Your task to perform on an android device: Open my contact list Image 0: 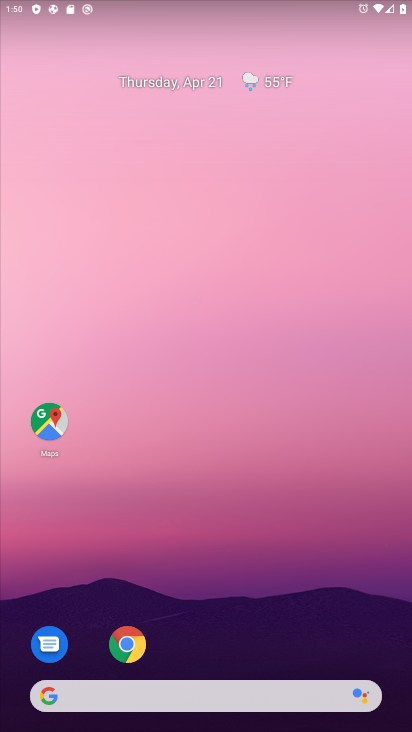
Step 0: drag from (252, 646) to (193, 208)
Your task to perform on an android device: Open my contact list Image 1: 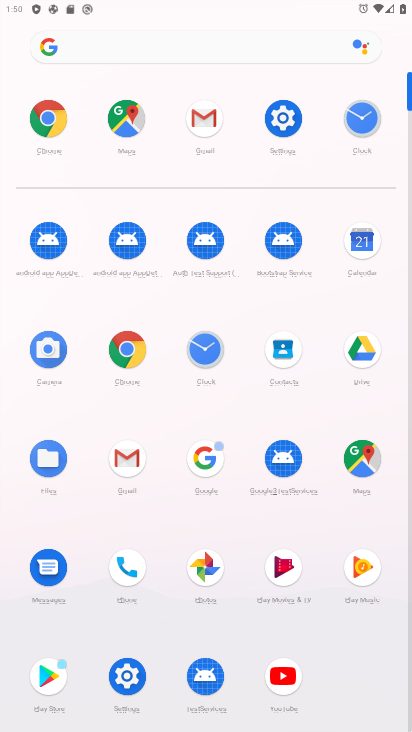
Step 1: click (294, 354)
Your task to perform on an android device: Open my contact list Image 2: 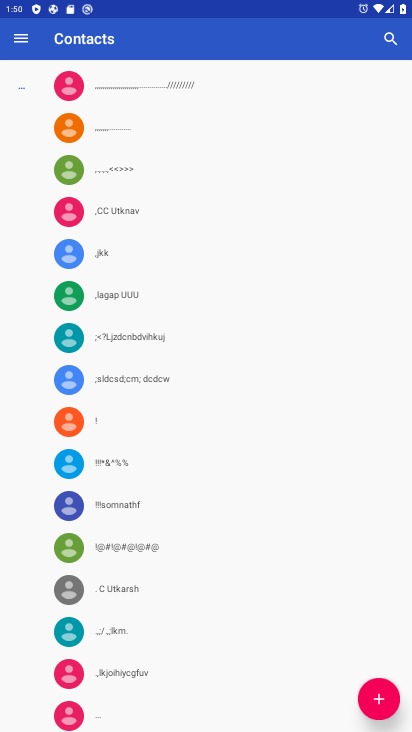
Step 2: task complete